Your task to perform on an android device: Open notification settings Image 0: 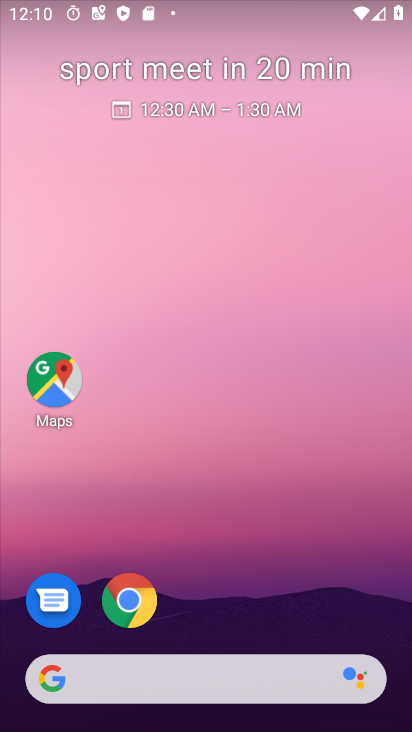
Step 0: drag from (183, 502) to (251, 49)
Your task to perform on an android device: Open notification settings Image 1: 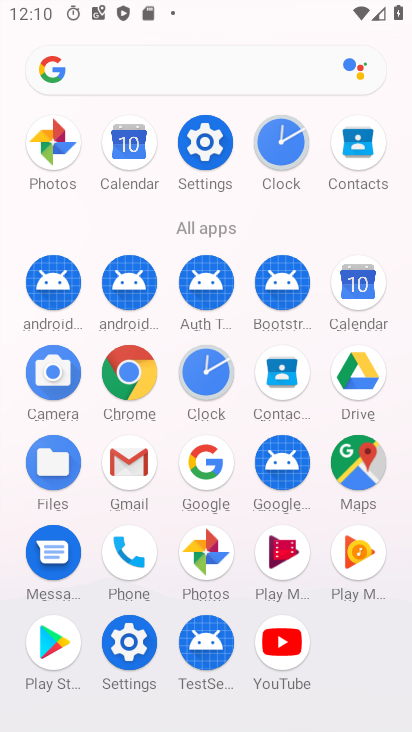
Step 1: click (206, 183)
Your task to perform on an android device: Open notification settings Image 2: 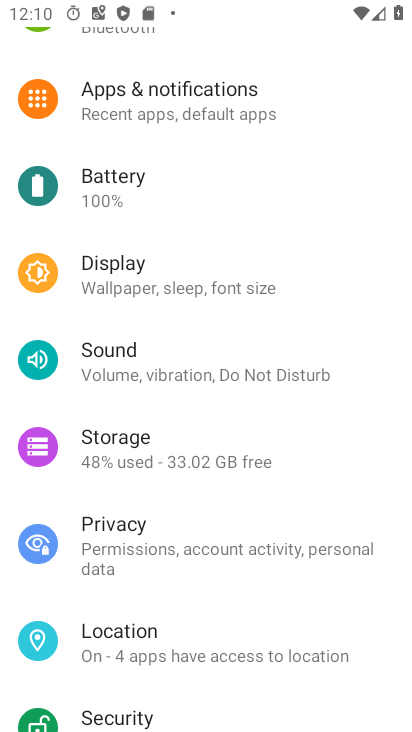
Step 2: click (231, 113)
Your task to perform on an android device: Open notification settings Image 3: 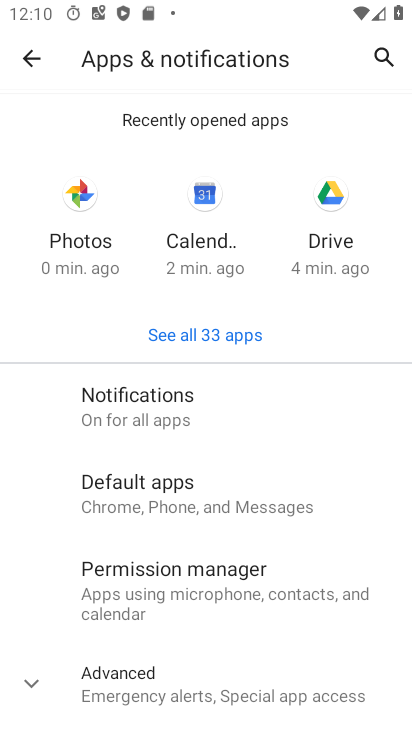
Step 3: click (196, 413)
Your task to perform on an android device: Open notification settings Image 4: 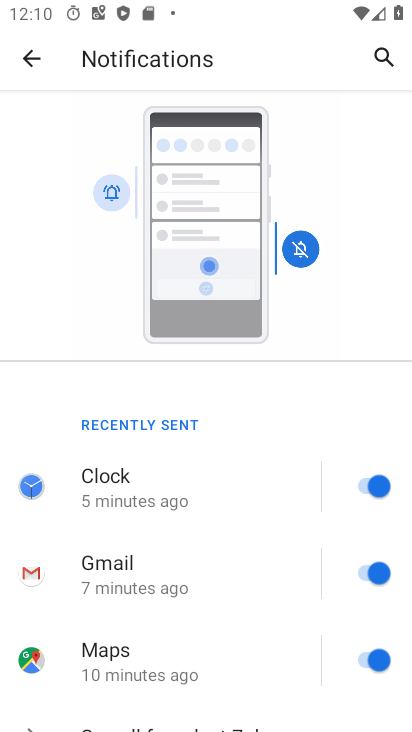
Step 4: task complete